Your task to perform on an android device: open sync settings in chrome Image 0: 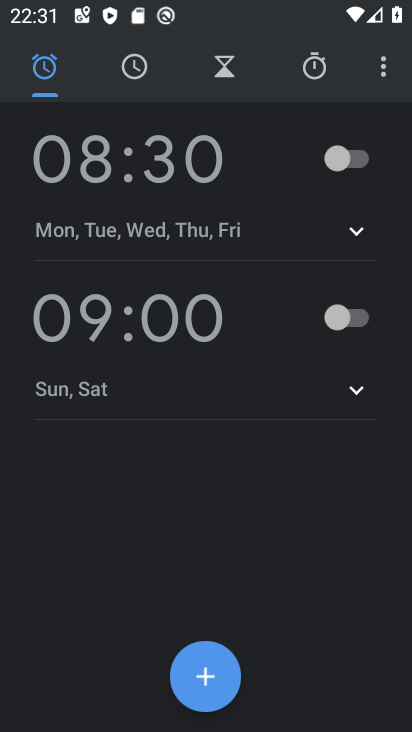
Step 0: press home button
Your task to perform on an android device: open sync settings in chrome Image 1: 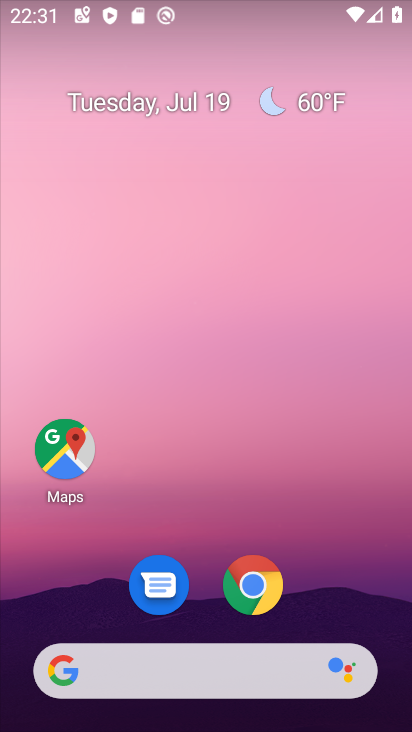
Step 1: click (254, 585)
Your task to perform on an android device: open sync settings in chrome Image 2: 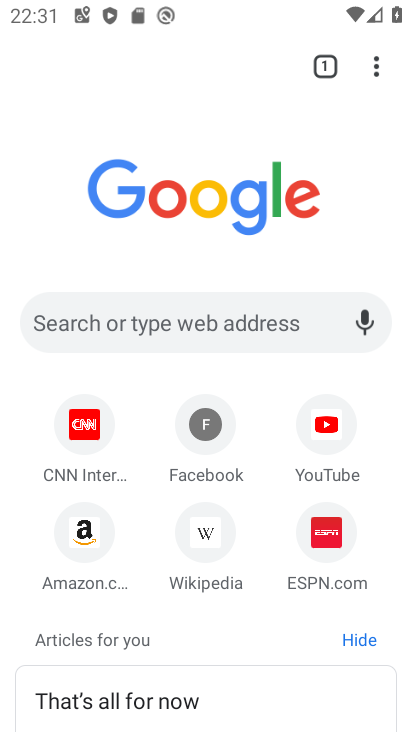
Step 2: click (375, 69)
Your task to perform on an android device: open sync settings in chrome Image 3: 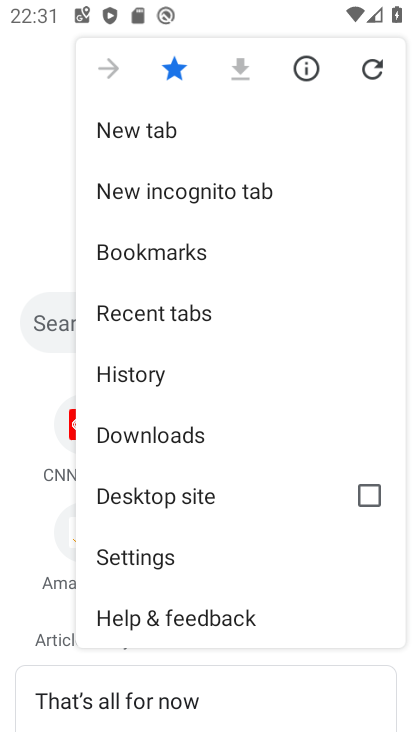
Step 3: click (165, 560)
Your task to perform on an android device: open sync settings in chrome Image 4: 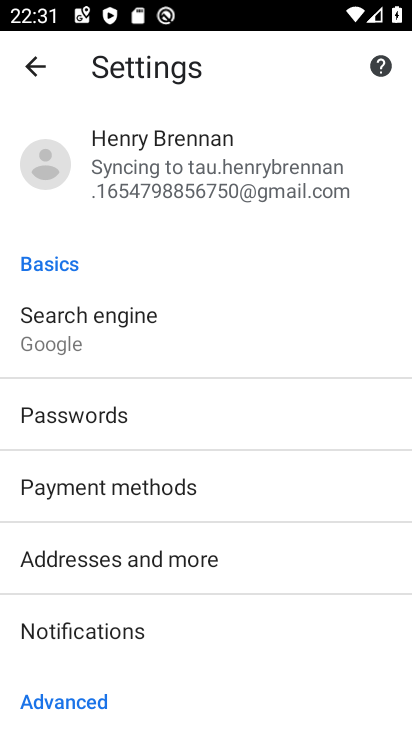
Step 4: click (209, 177)
Your task to perform on an android device: open sync settings in chrome Image 5: 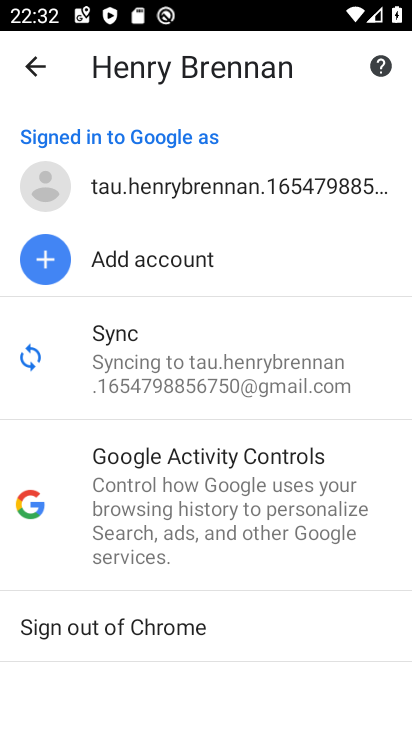
Step 5: click (210, 358)
Your task to perform on an android device: open sync settings in chrome Image 6: 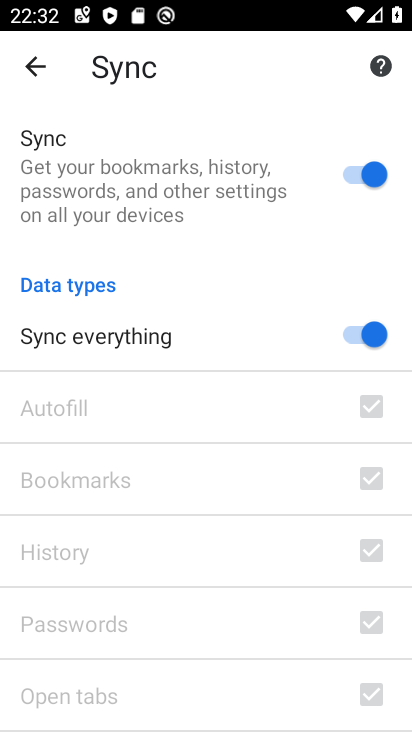
Step 6: task complete